Your task to perform on an android device: Open battery settings Image 0: 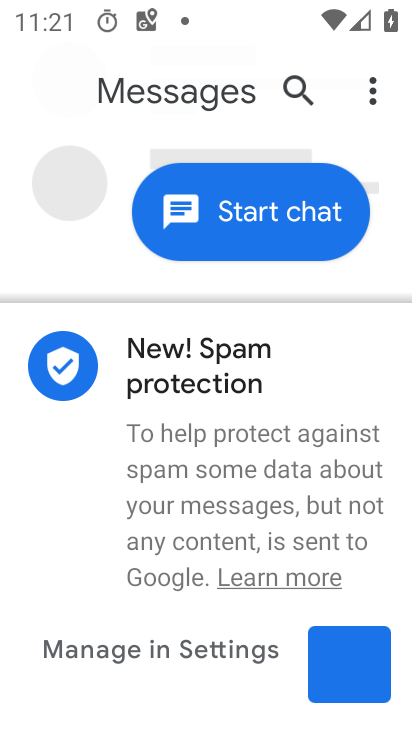
Step 0: press home button
Your task to perform on an android device: Open battery settings Image 1: 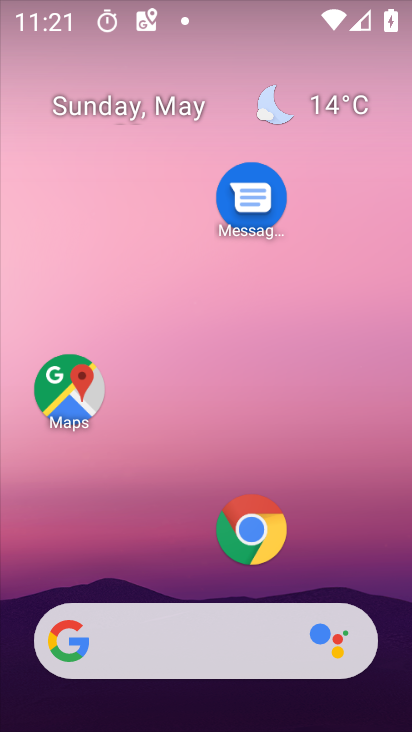
Step 1: drag from (150, 551) to (191, 196)
Your task to perform on an android device: Open battery settings Image 2: 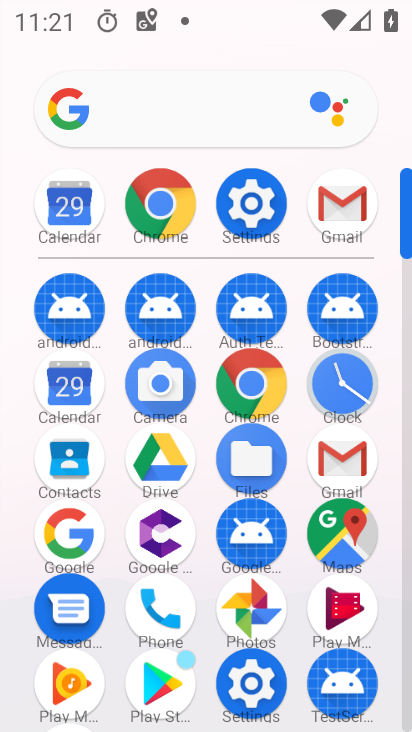
Step 2: click (251, 207)
Your task to perform on an android device: Open battery settings Image 3: 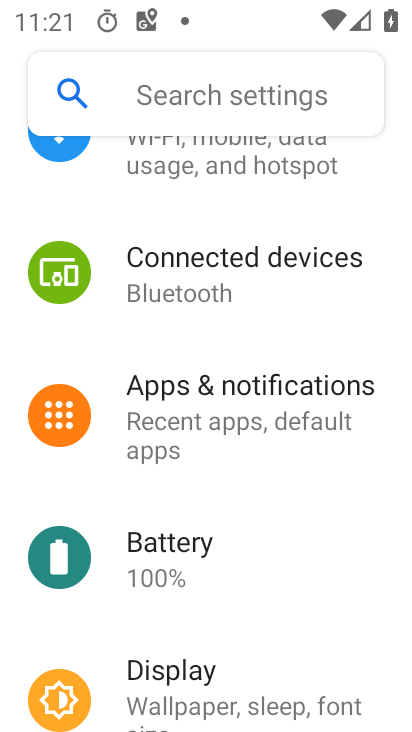
Step 3: click (195, 574)
Your task to perform on an android device: Open battery settings Image 4: 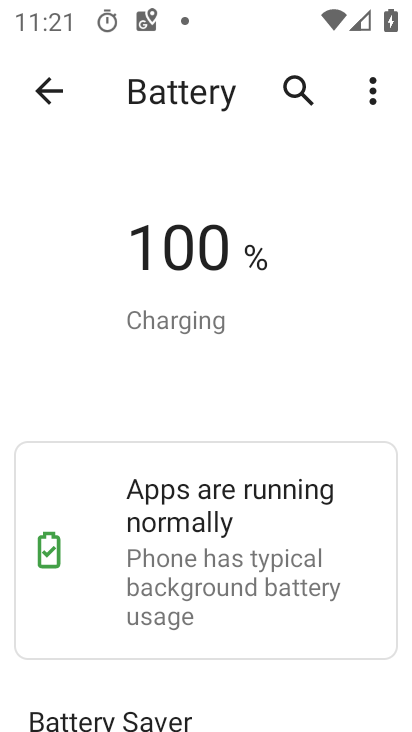
Step 4: task complete